Your task to perform on an android device: Add usb-a to the cart on bestbuy.com Image 0: 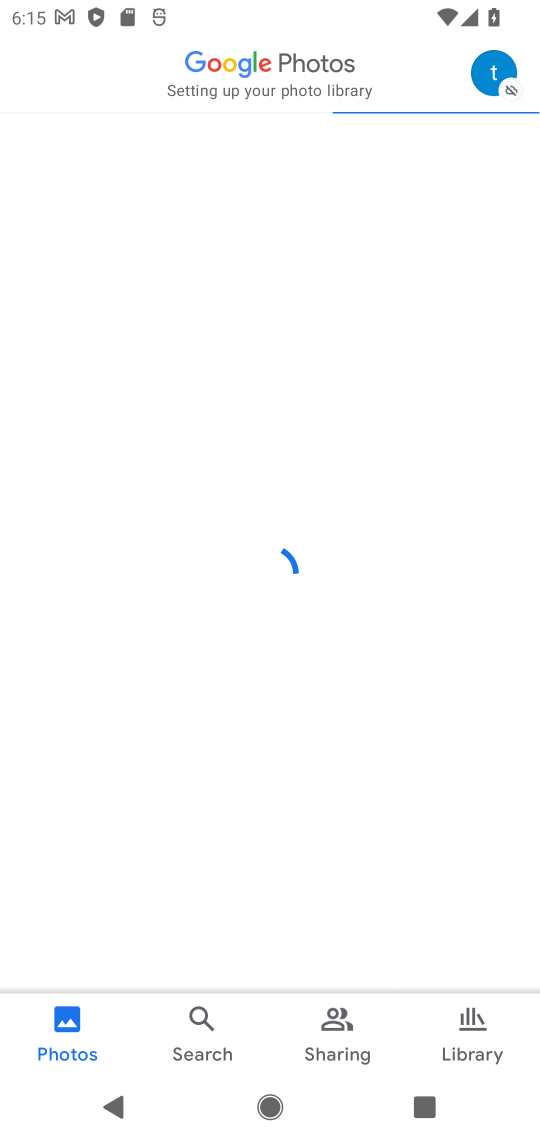
Step 0: press home button
Your task to perform on an android device: Add usb-a to the cart on bestbuy.com Image 1: 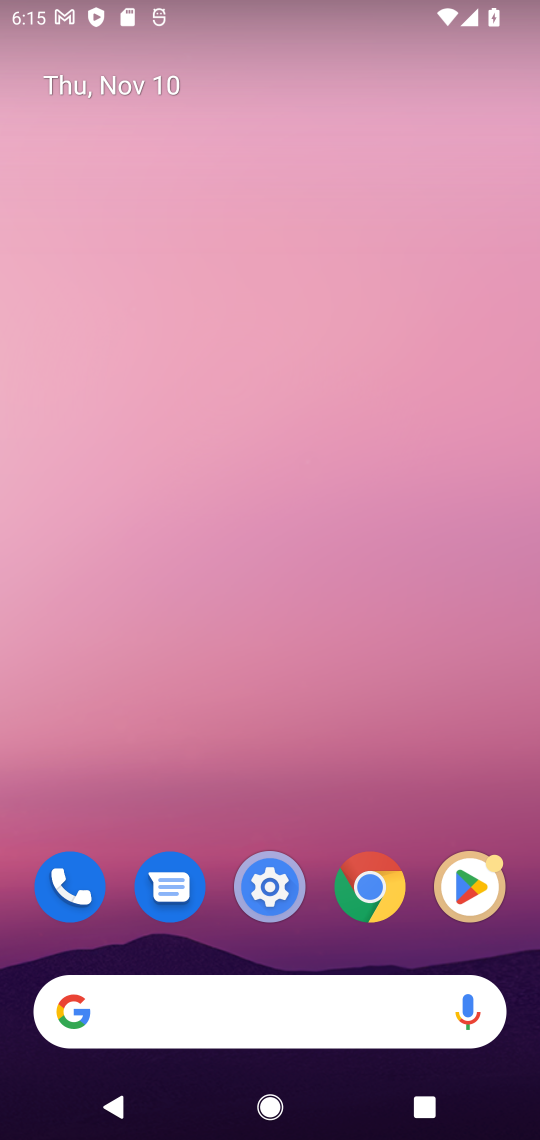
Step 1: click (220, 997)
Your task to perform on an android device: Add usb-a to the cart on bestbuy.com Image 2: 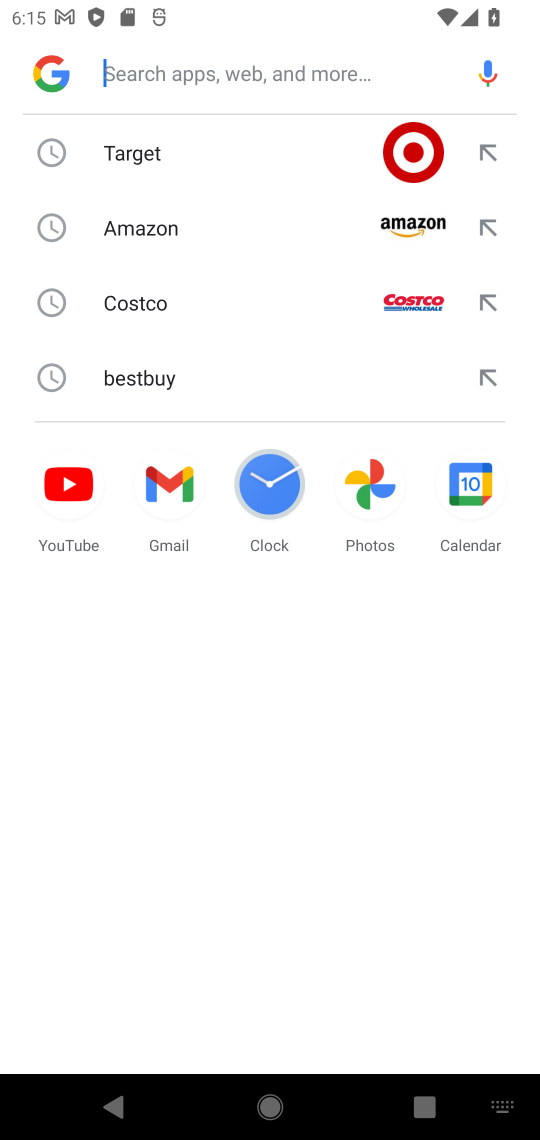
Step 2: type "bestbuy"
Your task to perform on an android device: Add usb-a to the cart on bestbuy.com Image 3: 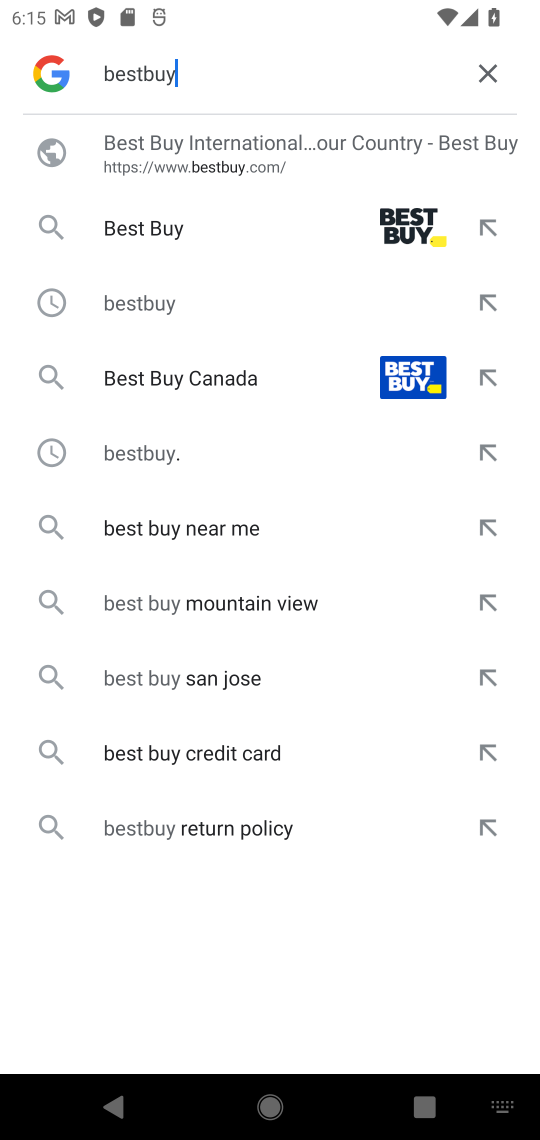
Step 3: click (151, 222)
Your task to perform on an android device: Add usb-a to the cart on bestbuy.com Image 4: 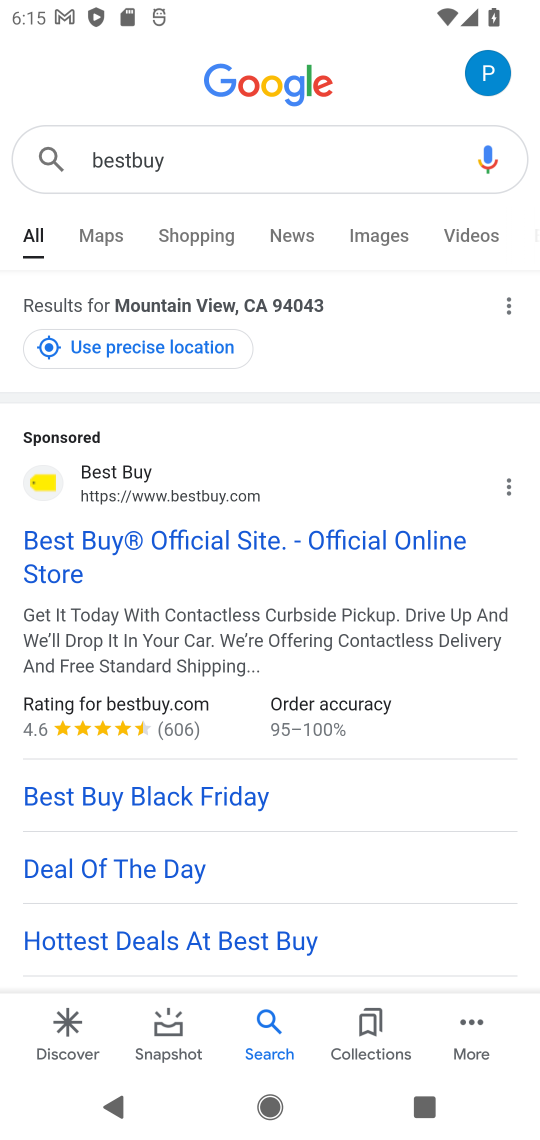
Step 4: click (70, 536)
Your task to perform on an android device: Add usb-a to the cart on bestbuy.com Image 5: 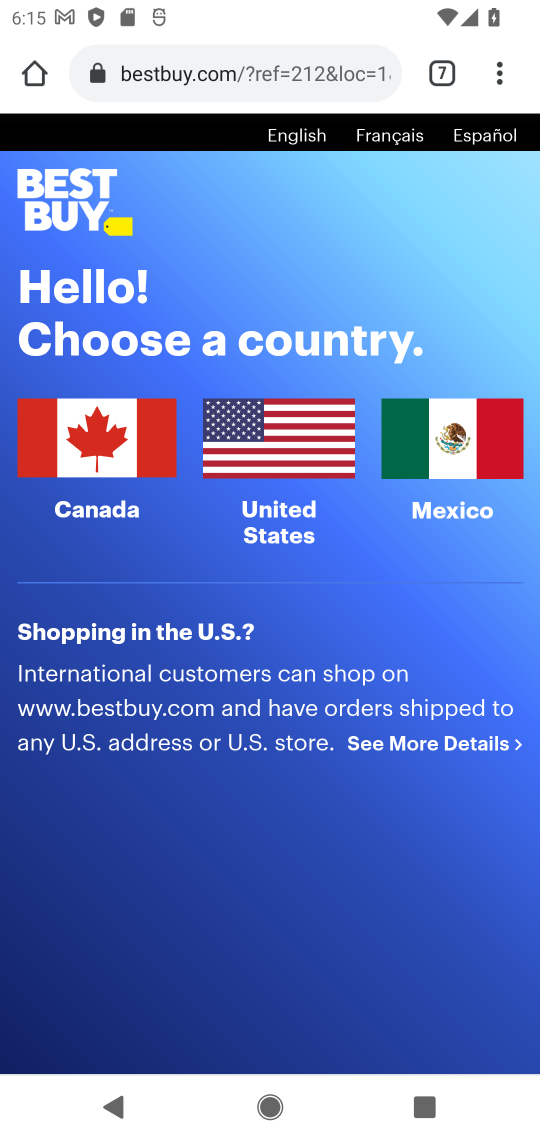
Step 5: click (289, 440)
Your task to perform on an android device: Add usb-a to the cart on bestbuy.com Image 6: 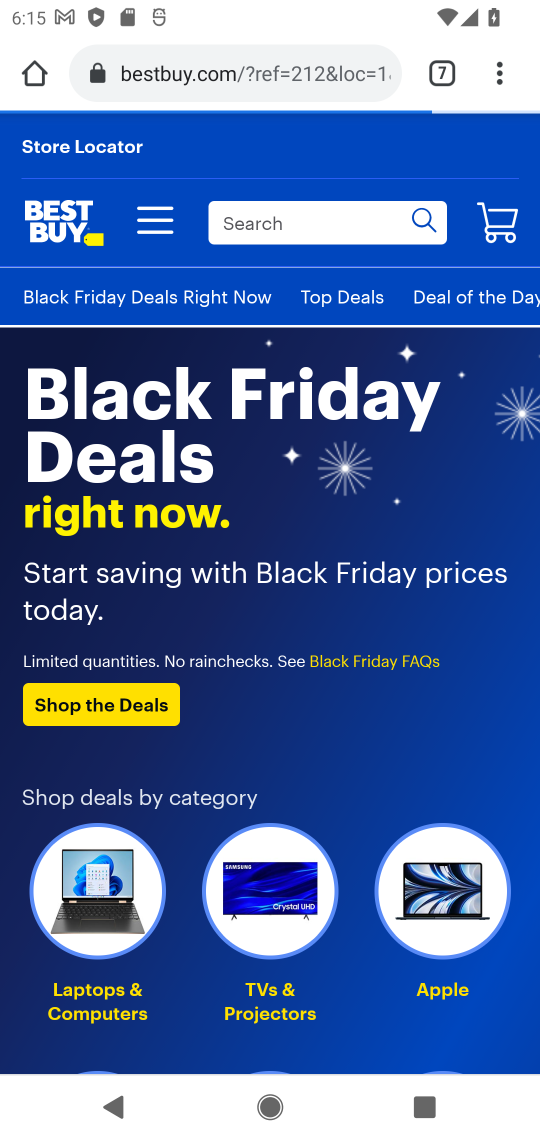
Step 6: click (232, 220)
Your task to perform on an android device: Add usb-a to the cart on bestbuy.com Image 7: 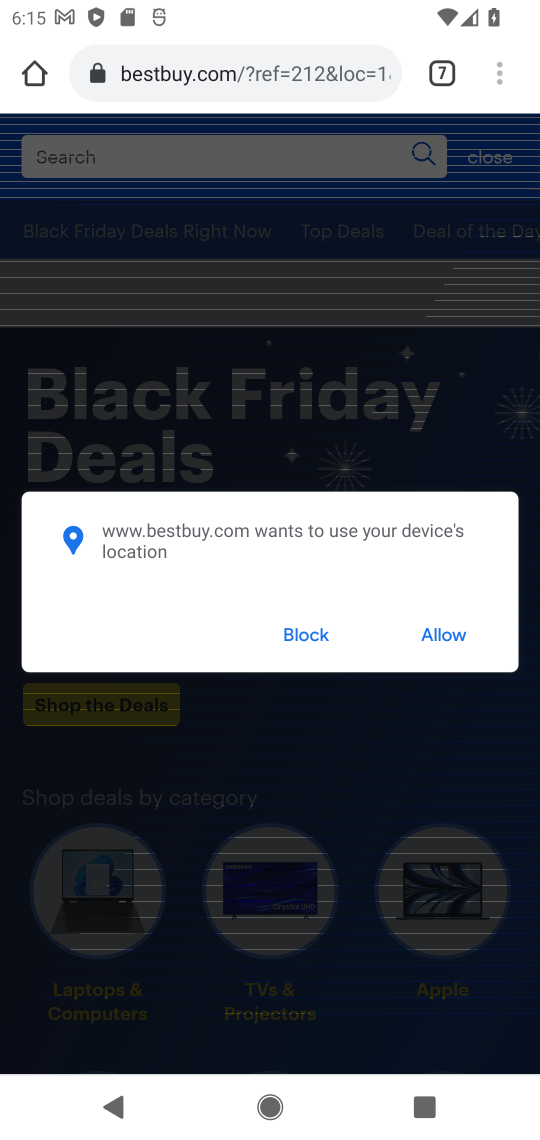
Step 7: type "usb-a"
Your task to perform on an android device: Add usb-a to the cart on bestbuy.com Image 8: 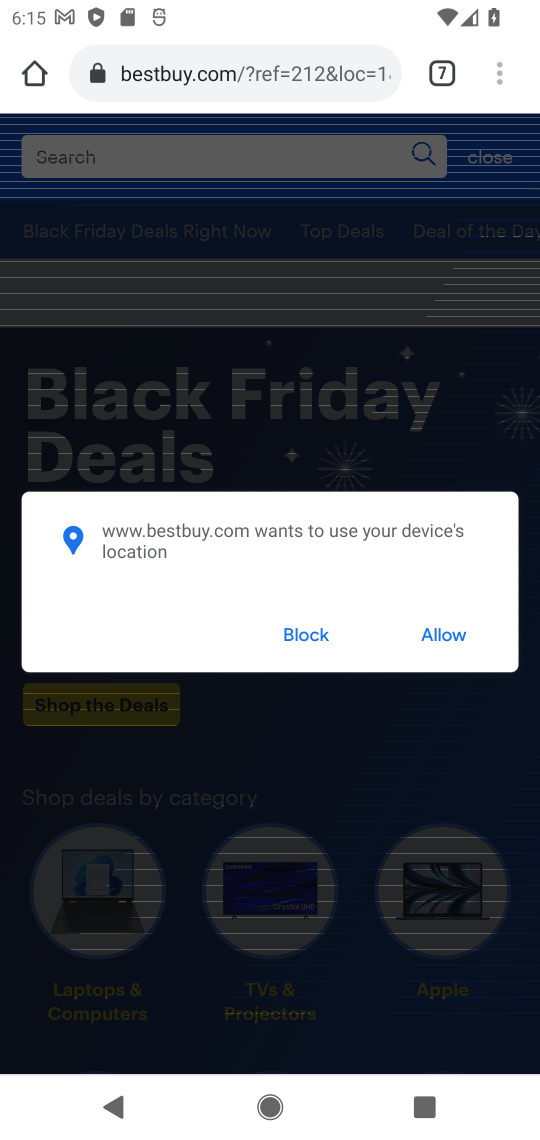
Step 8: click (445, 619)
Your task to perform on an android device: Add usb-a to the cart on bestbuy.com Image 9: 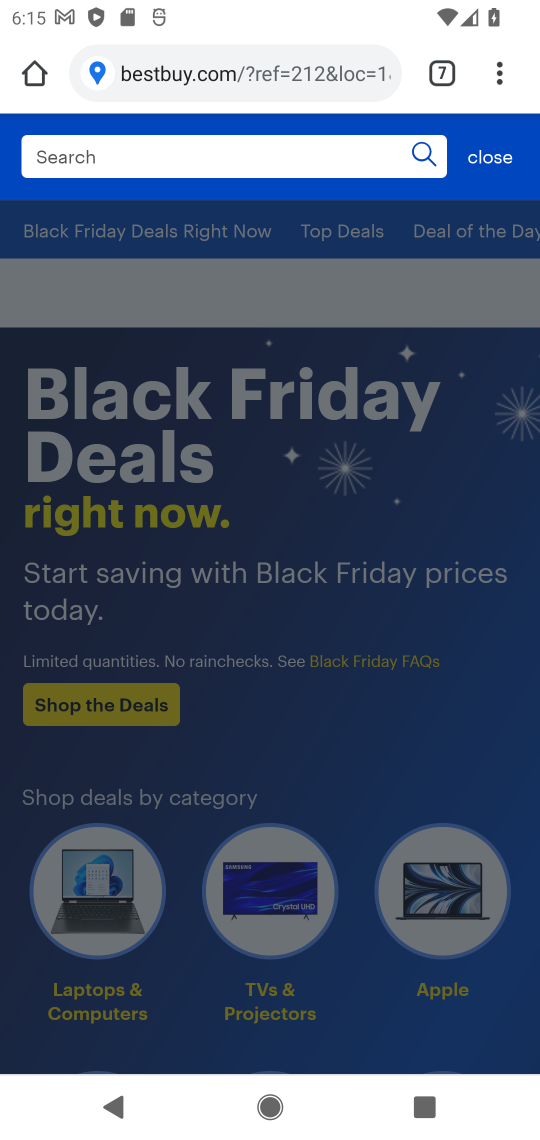
Step 9: type "usb-a"
Your task to perform on an android device: Add usb-a to the cart on bestbuy.com Image 10: 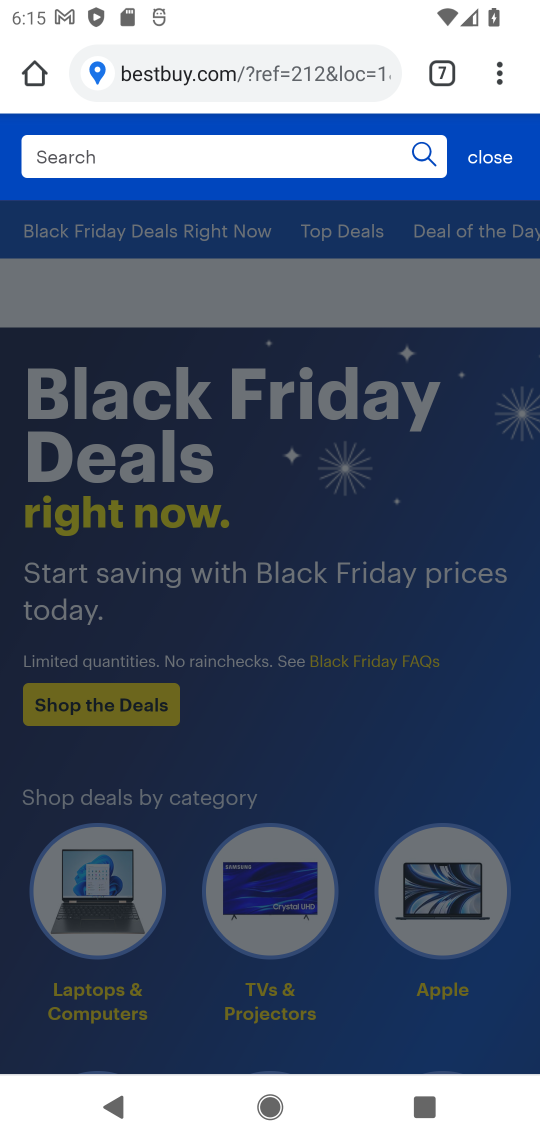
Step 10: type ""
Your task to perform on an android device: Add usb-a to the cart on bestbuy.com Image 11: 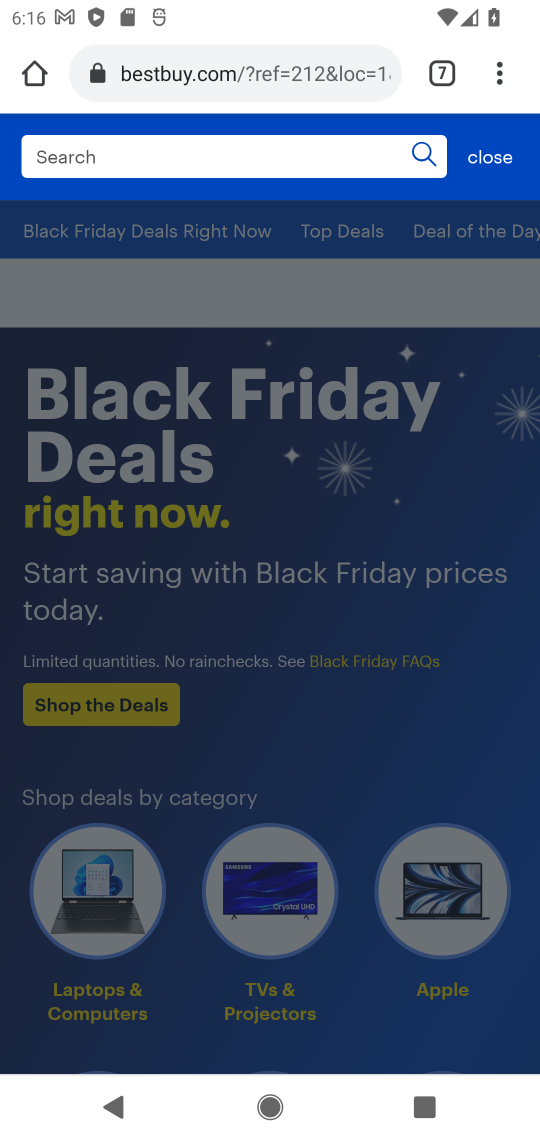
Step 11: click (102, 155)
Your task to perform on an android device: Add usb-a to the cart on bestbuy.com Image 12: 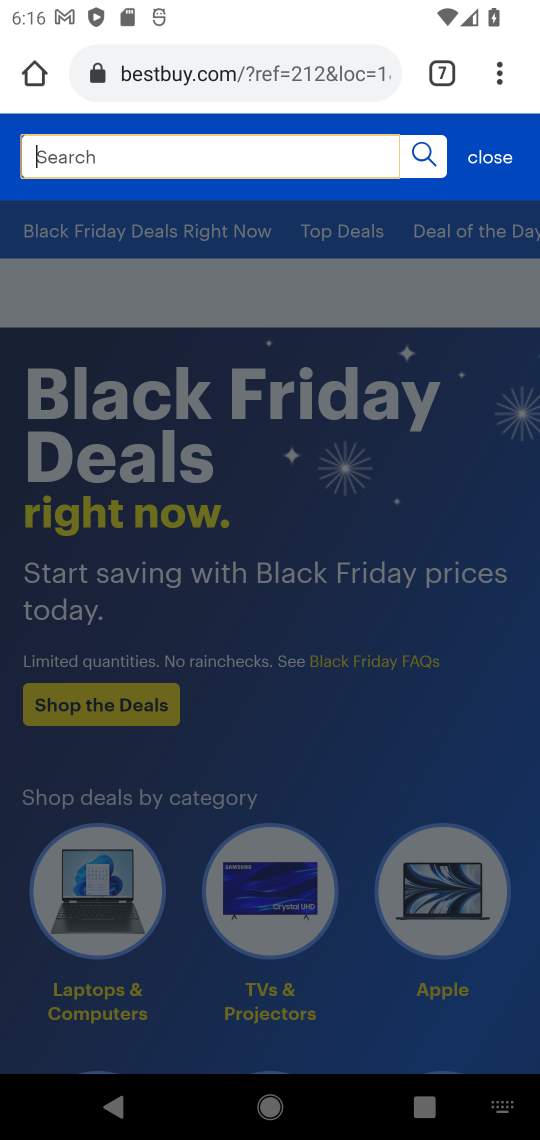
Step 12: type "usb-a"
Your task to perform on an android device: Add usb-a to the cart on bestbuy.com Image 13: 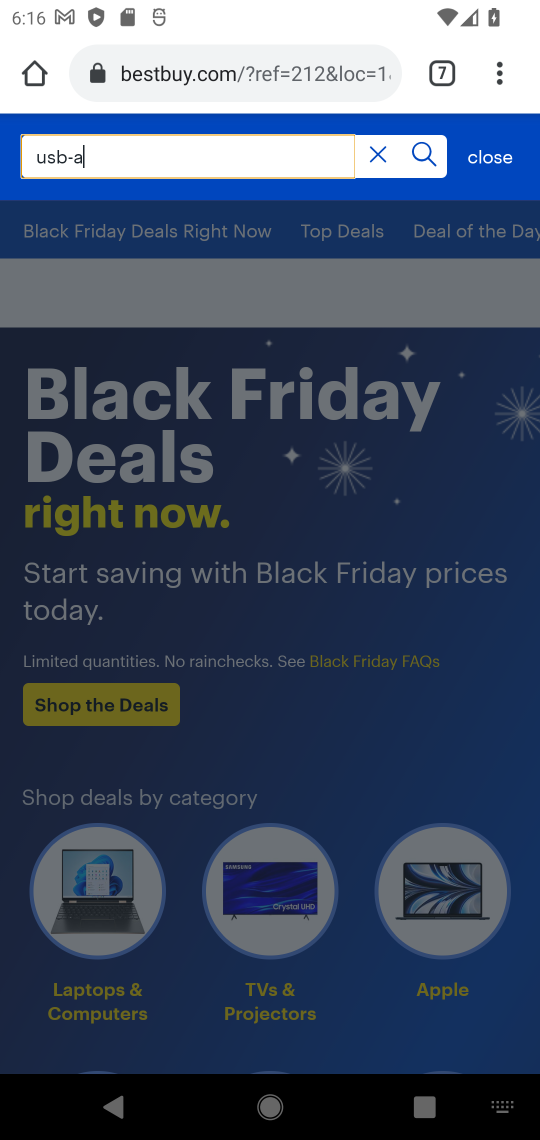
Step 13: type ""
Your task to perform on an android device: Add usb-a to the cart on bestbuy.com Image 14: 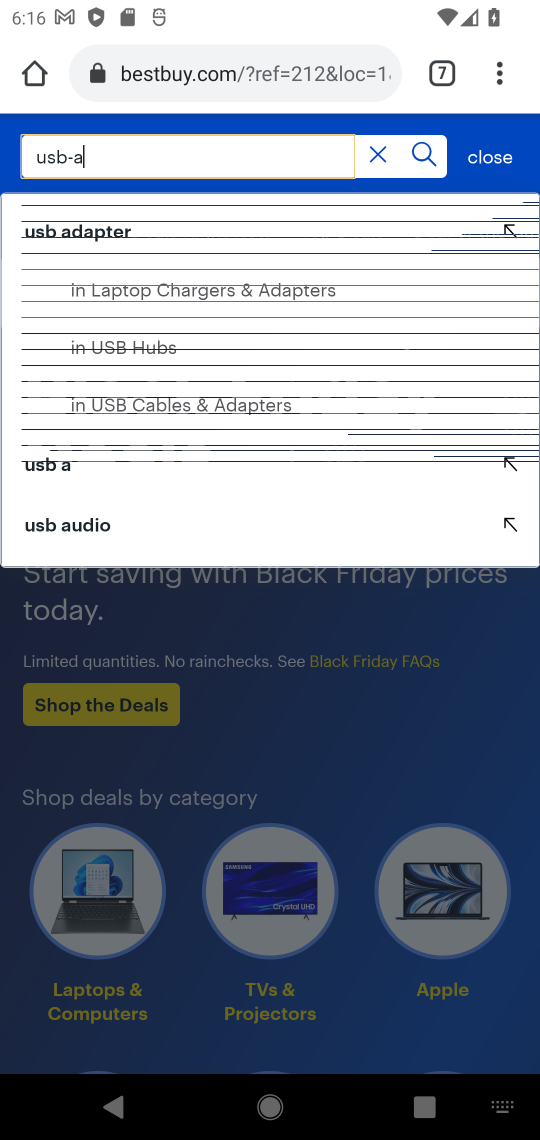
Step 14: click (79, 469)
Your task to perform on an android device: Add usb-a to the cart on bestbuy.com Image 15: 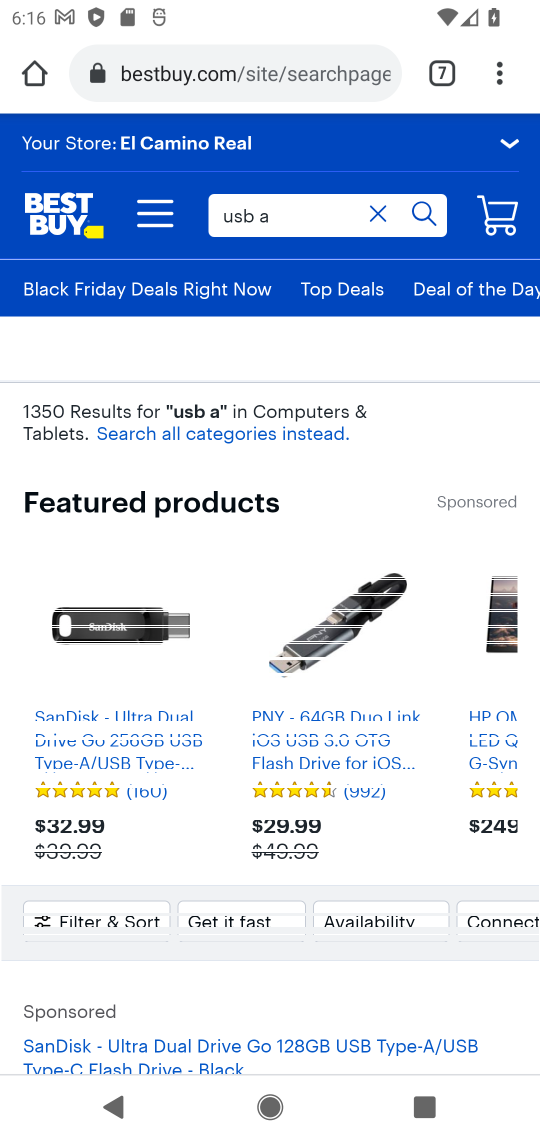
Step 15: click (97, 717)
Your task to perform on an android device: Add usb-a to the cart on bestbuy.com Image 16: 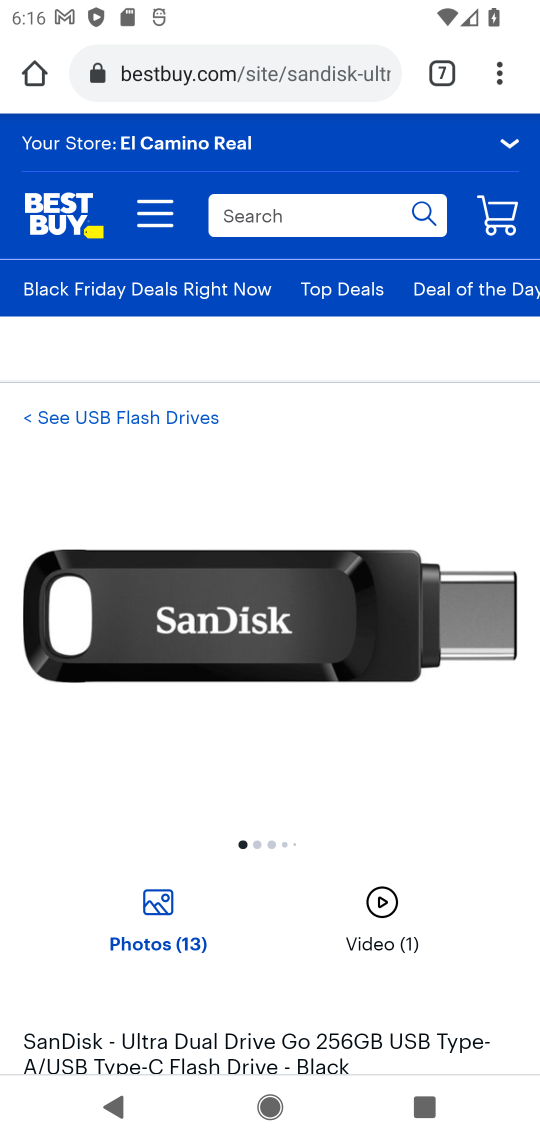
Step 16: drag from (362, 818) to (321, 332)
Your task to perform on an android device: Add usb-a to the cart on bestbuy.com Image 17: 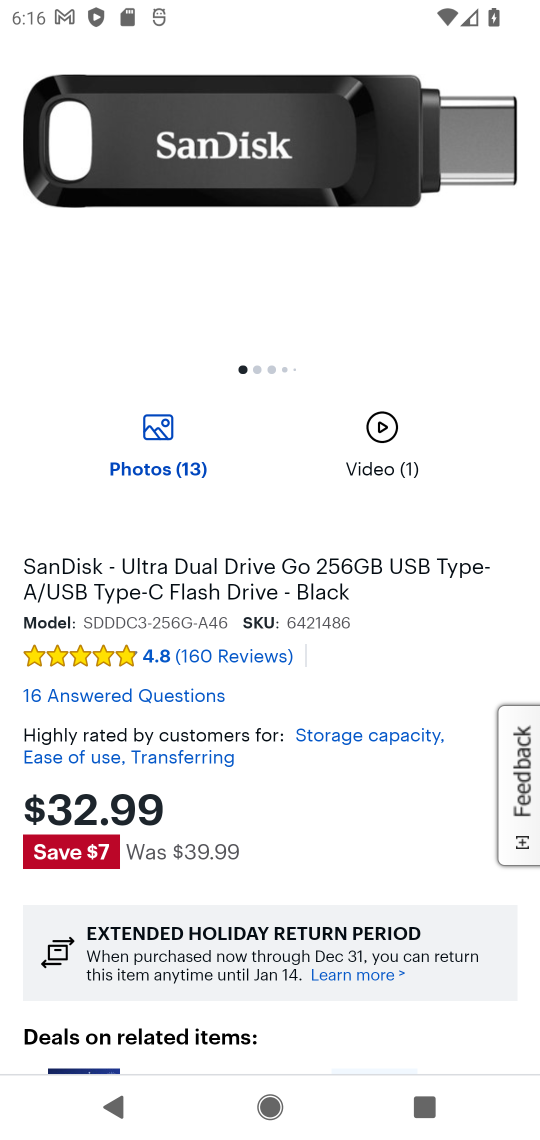
Step 17: drag from (288, 785) to (258, 465)
Your task to perform on an android device: Add usb-a to the cart on bestbuy.com Image 18: 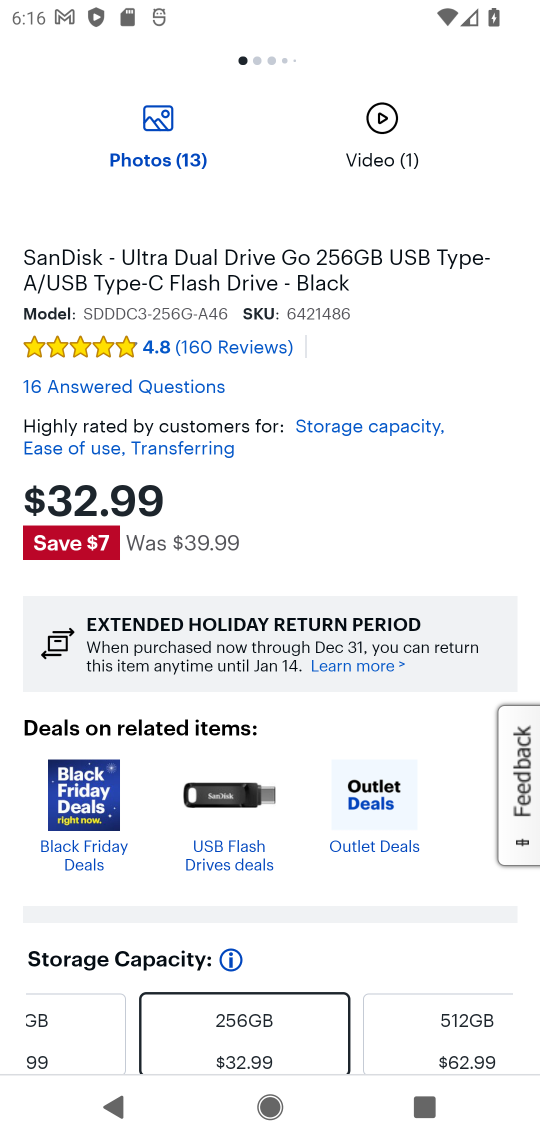
Step 18: drag from (300, 647) to (264, 374)
Your task to perform on an android device: Add usb-a to the cart on bestbuy.com Image 19: 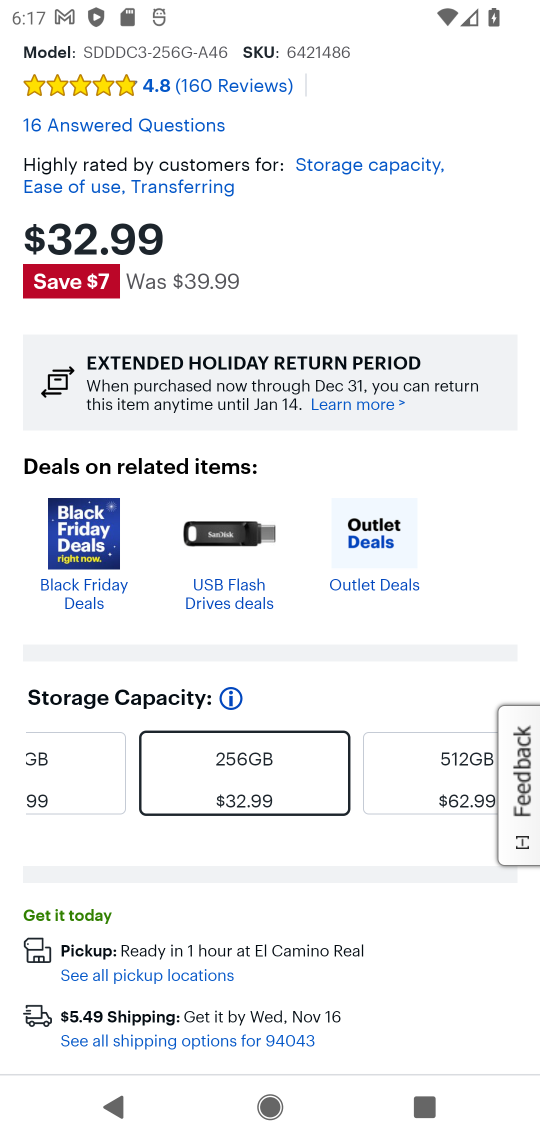
Step 19: drag from (510, 633) to (481, 127)
Your task to perform on an android device: Add usb-a to the cart on bestbuy.com Image 20: 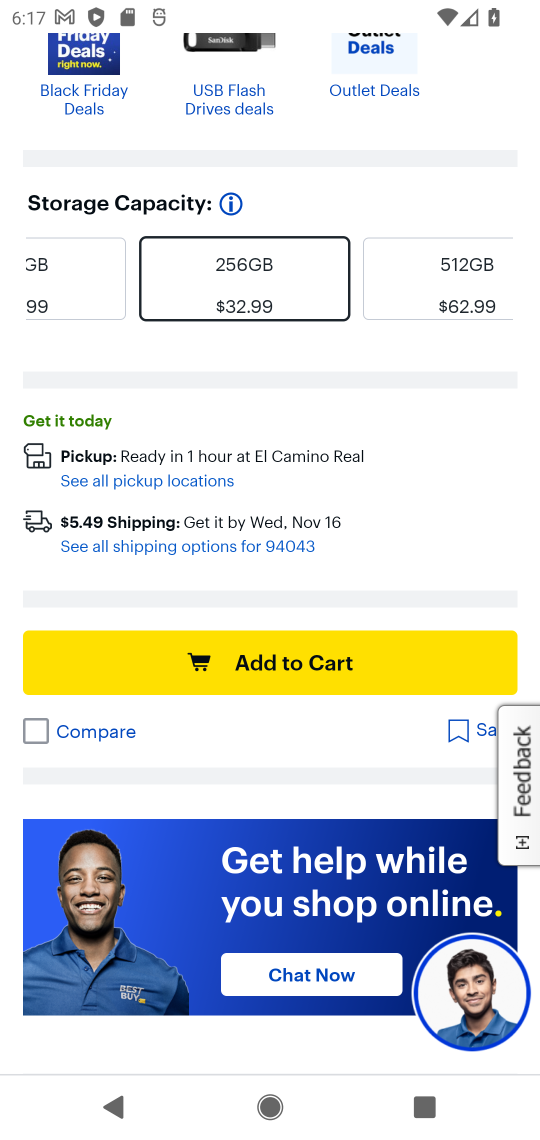
Step 20: click (275, 660)
Your task to perform on an android device: Add usb-a to the cart on bestbuy.com Image 21: 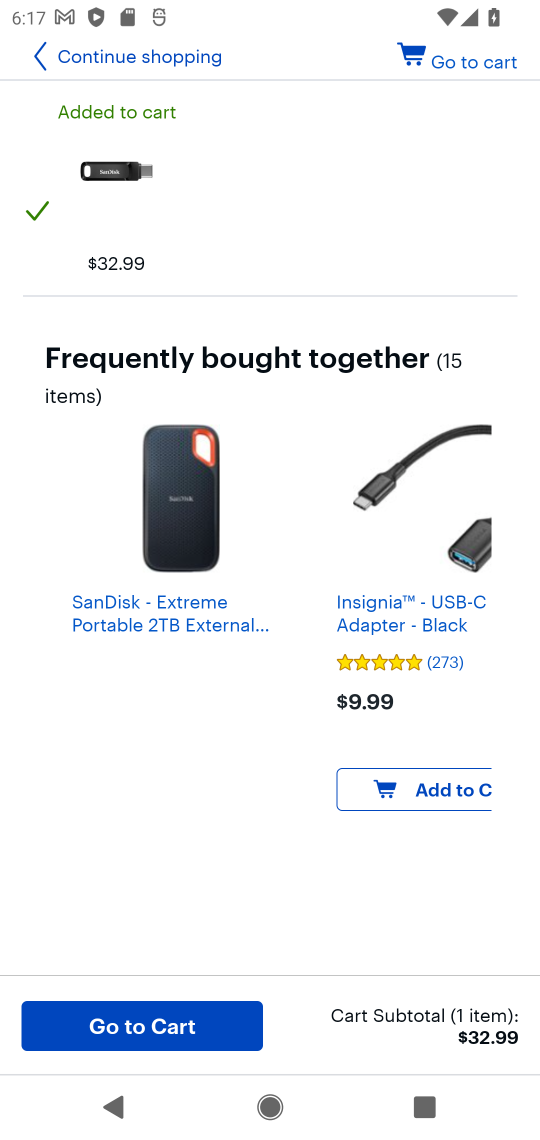
Step 21: task complete